Your task to perform on an android device: delete browsing data in the chrome app Image 0: 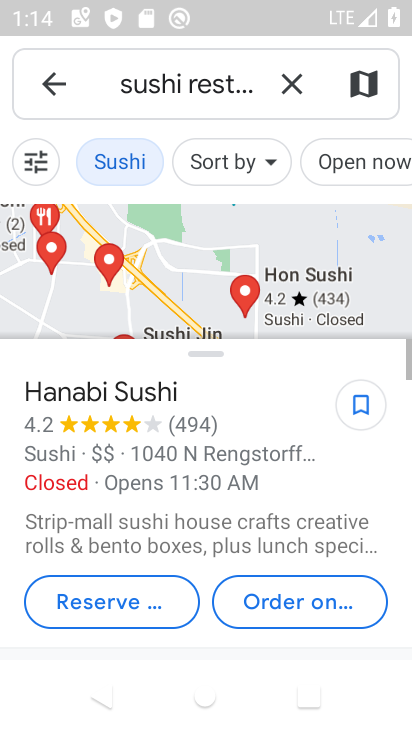
Step 0: press home button
Your task to perform on an android device: delete browsing data in the chrome app Image 1: 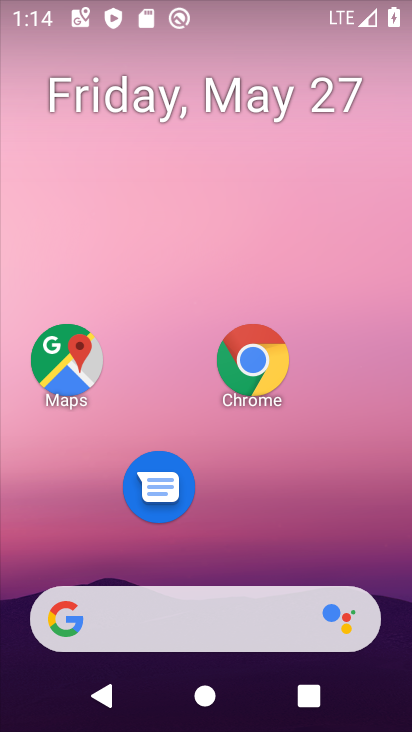
Step 1: click (259, 359)
Your task to perform on an android device: delete browsing data in the chrome app Image 2: 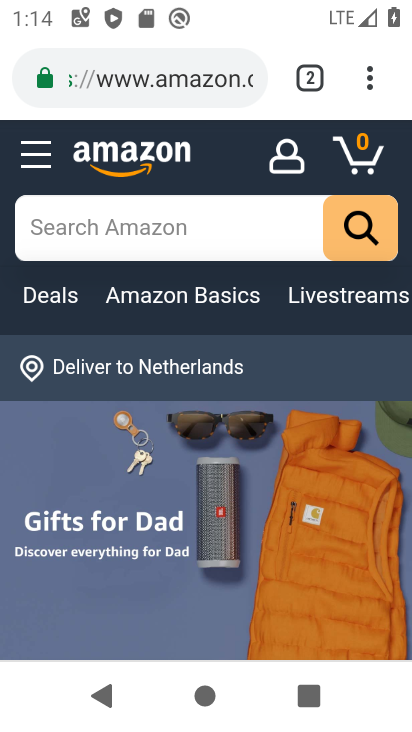
Step 2: click (363, 77)
Your task to perform on an android device: delete browsing data in the chrome app Image 3: 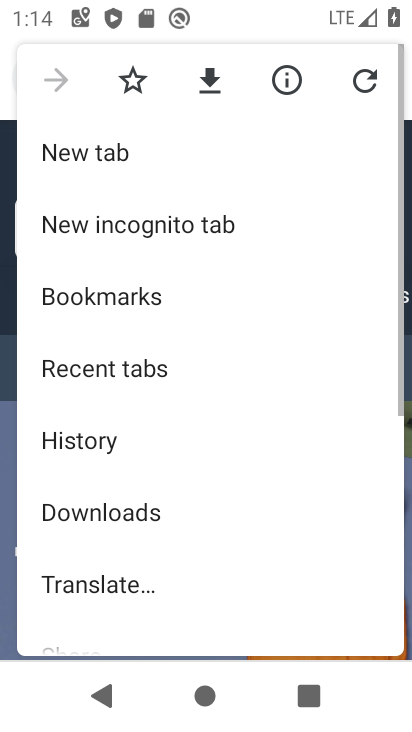
Step 3: drag from (268, 545) to (252, 107)
Your task to perform on an android device: delete browsing data in the chrome app Image 4: 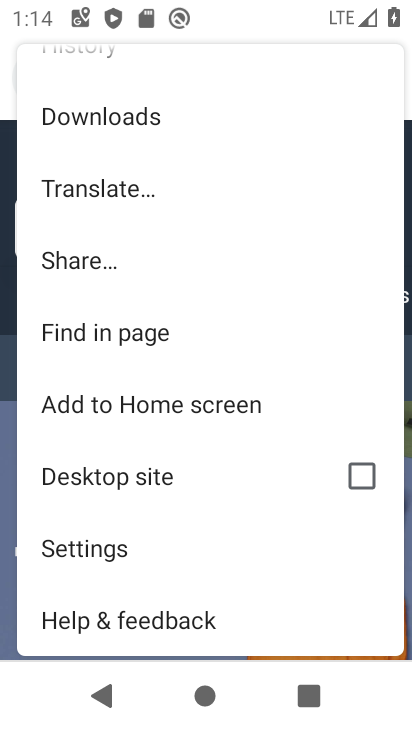
Step 4: click (182, 220)
Your task to perform on an android device: delete browsing data in the chrome app Image 5: 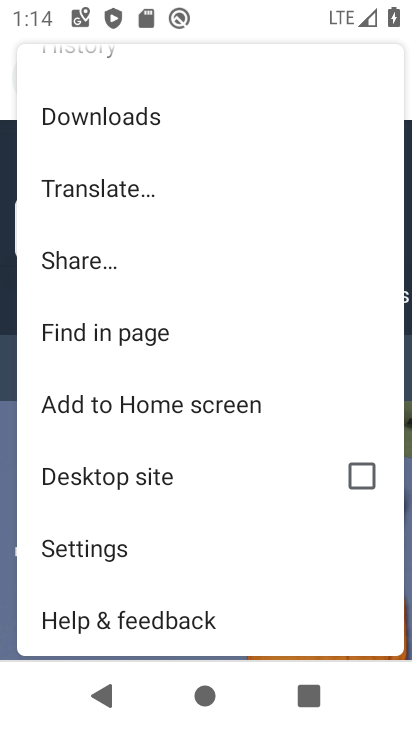
Step 5: click (109, 539)
Your task to perform on an android device: delete browsing data in the chrome app Image 6: 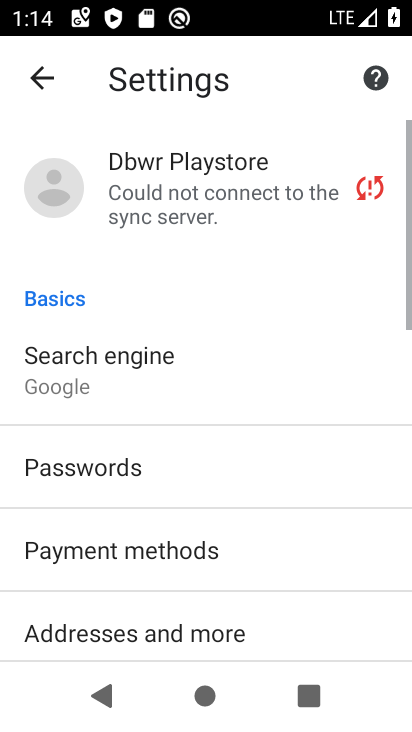
Step 6: drag from (170, 314) to (208, 98)
Your task to perform on an android device: delete browsing data in the chrome app Image 7: 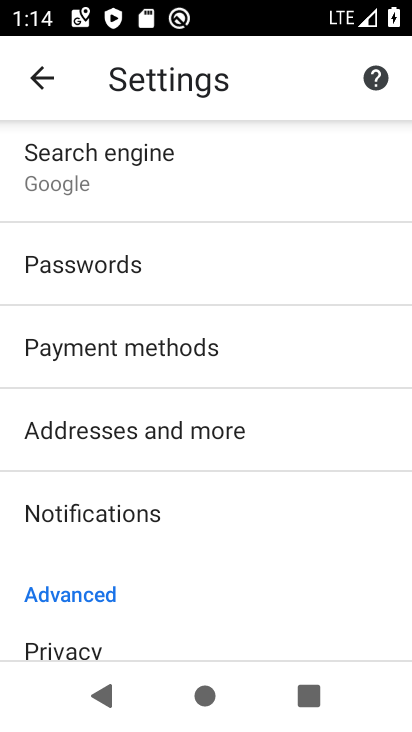
Step 7: click (110, 632)
Your task to perform on an android device: delete browsing data in the chrome app Image 8: 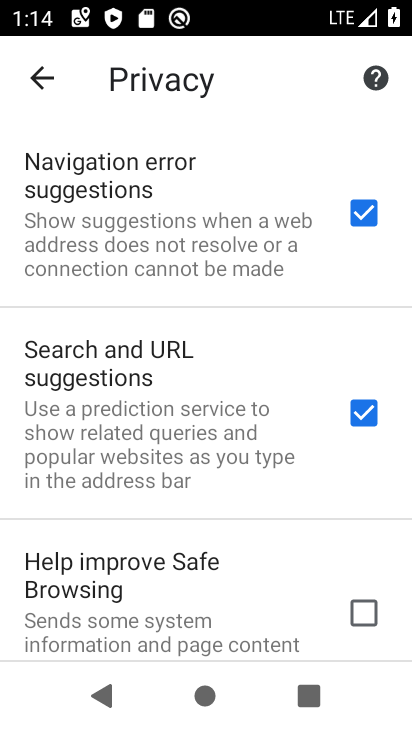
Step 8: drag from (126, 586) to (195, 74)
Your task to perform on an android device: delete browsing data in the chrome app Image 9: 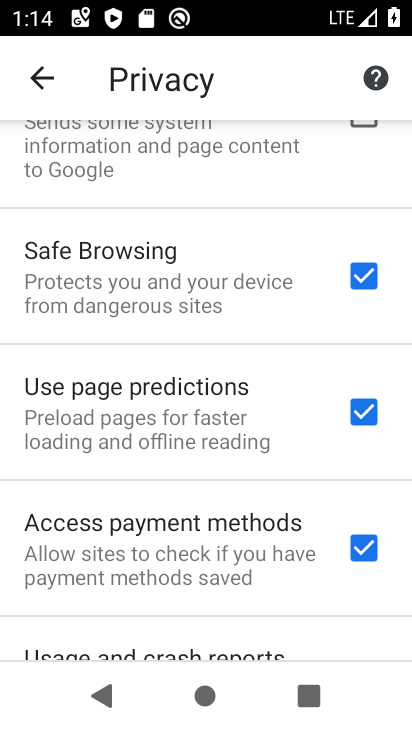
Step 9: drag from (206, 573) to (260, 80)
Your task to perform on an android device: delete browsing data in the chrome app Image 10: 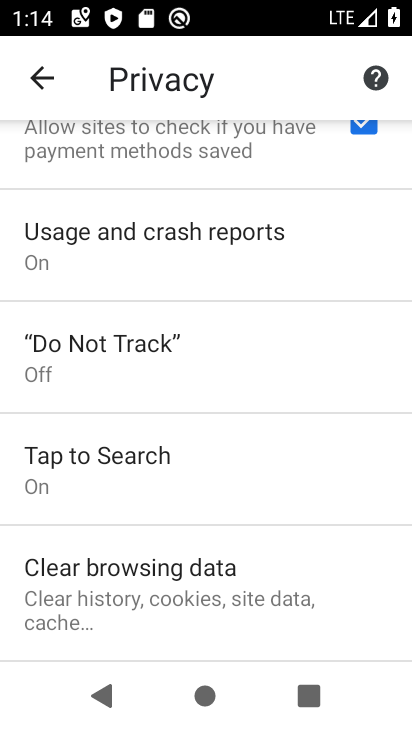
Step 10: click (220, 579)
Your task to perform on an android device: delete browsing data in the chrome app Image 11: 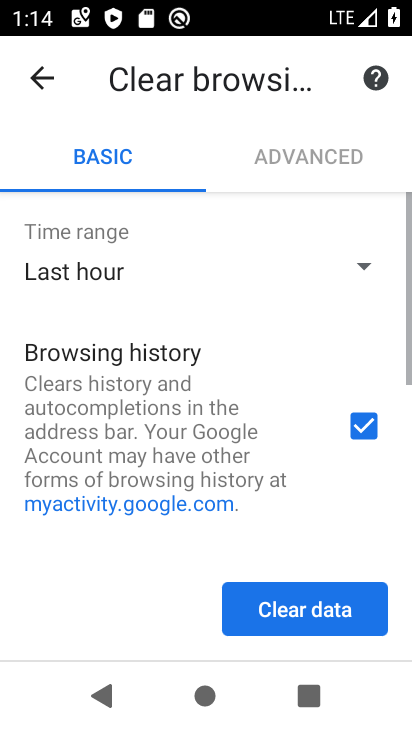
Step 11: drag from (298, 467) to (323, 150)
Your task to perform on an android device: delete browsing data in the chrome app Image 12: 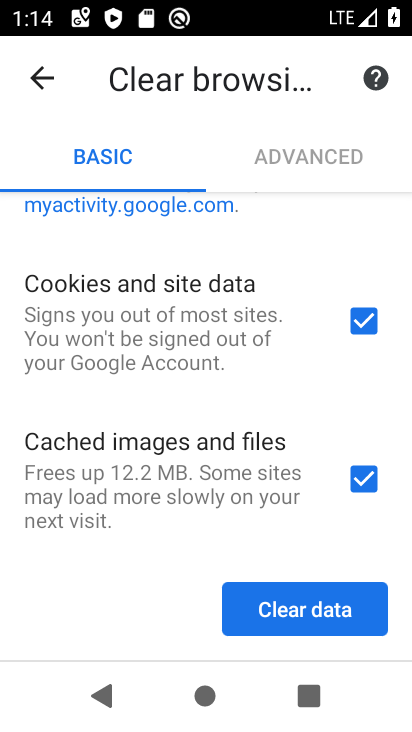
Step 12: click (366, 313)
Your task to perform on an android device: delete browsing data in the chrome app Image 13: 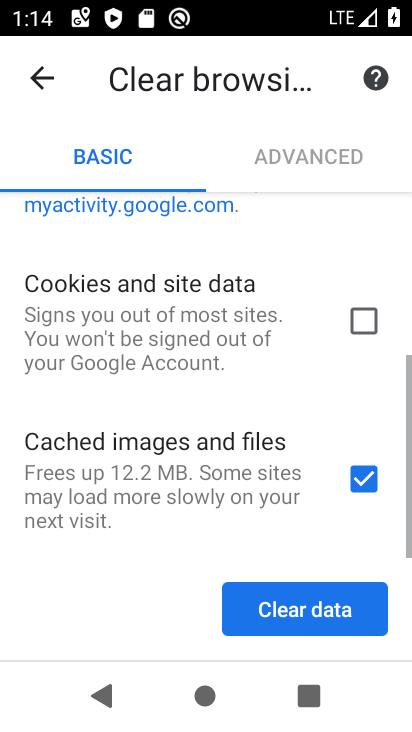
Step 13: click (371, 475)
Your task to perform on an android device: delete browsing data in the chrome app Image 14: 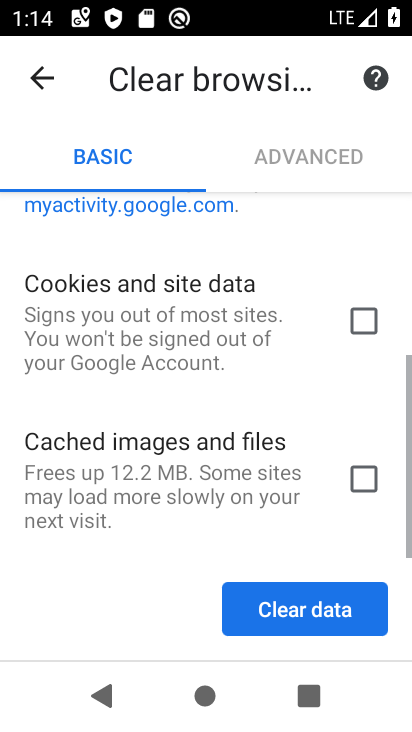
Step 14: click (289, 612)
Your task to perform on an android device: delete browsing data in the chrome app Image 15: 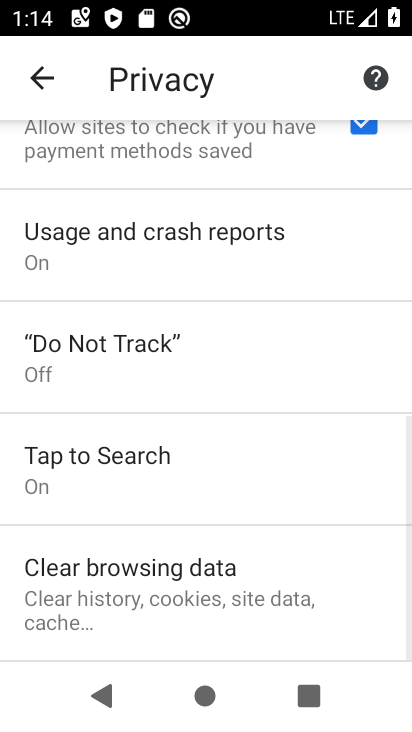
Step 15: task complete